Your task to perform on an android device: uninstall "Mercado Libre" Image 0: 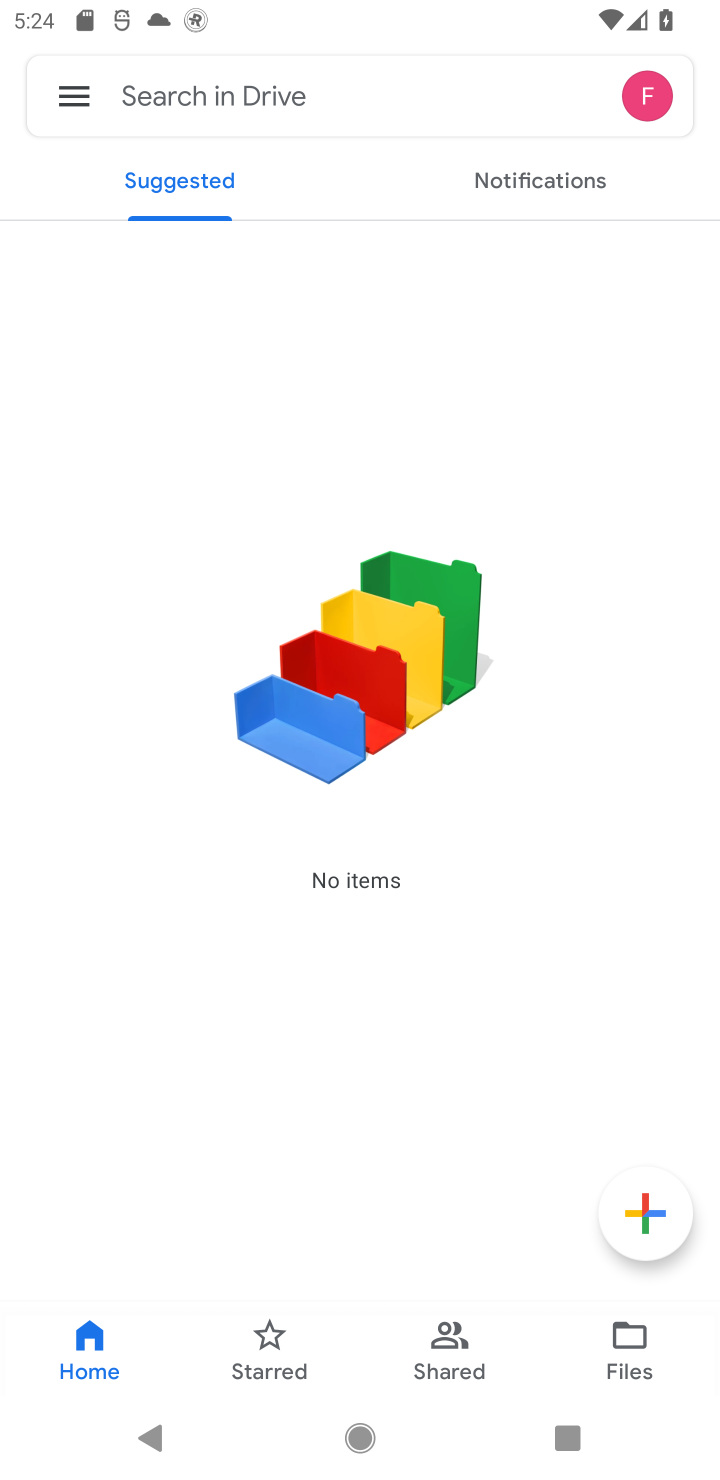
Step 0: press home button
Your task to perform on an android device: uninstall "Mercado Libre" Image 1: 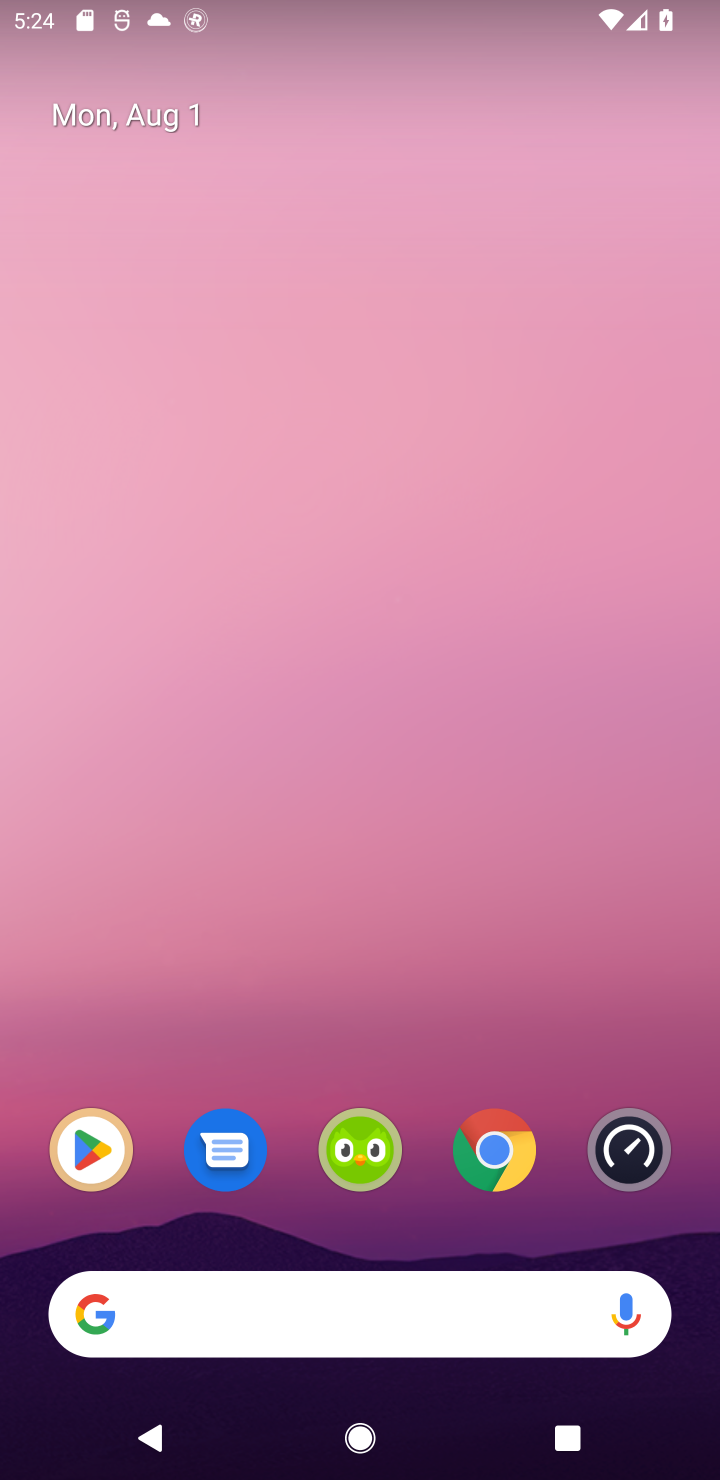
Step 1: drag from (292, 1257) to (247, 299)
Your task to perform on an android device: uninstall "Mercado Libre" Image 2: 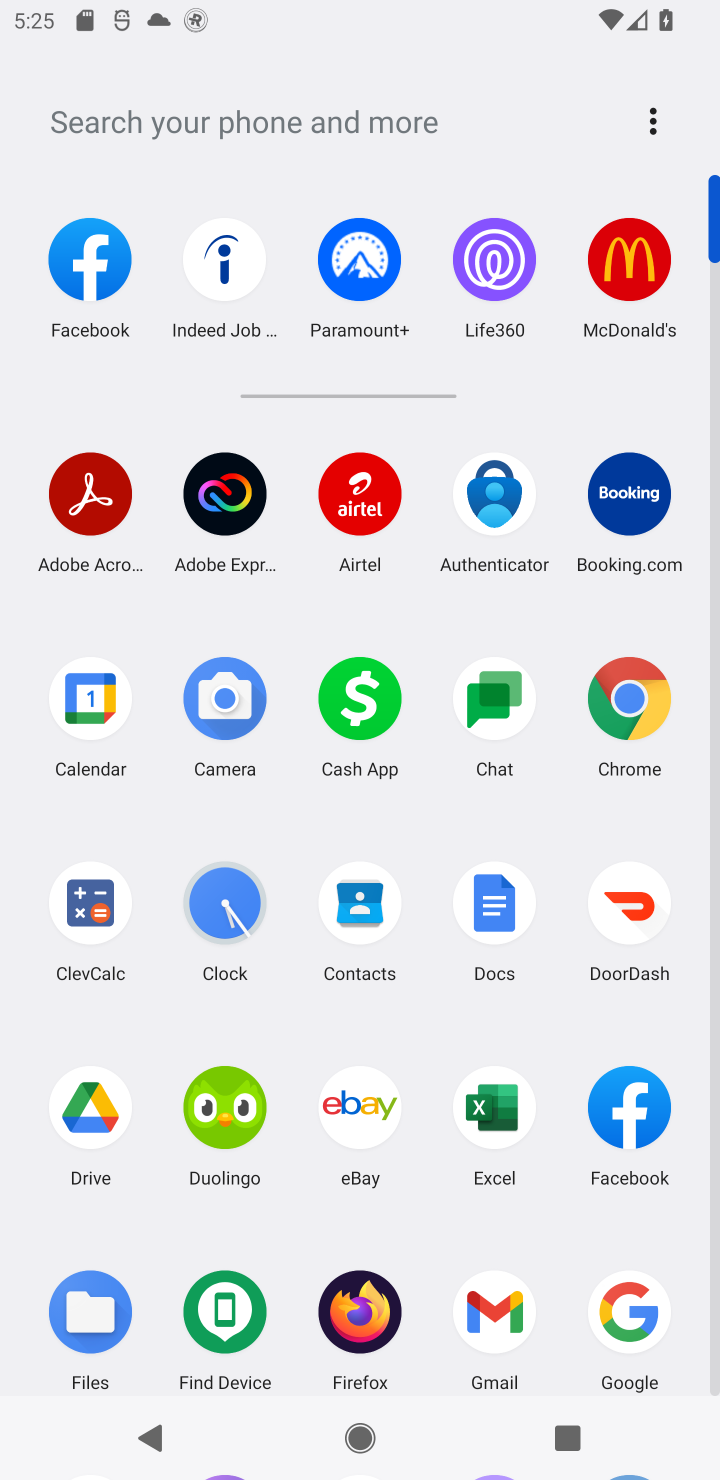
Step 2: drag from (716, 236) to (610, 685)
Your task to perform on an android device: uninstall "Mercado Libre" Image 3: 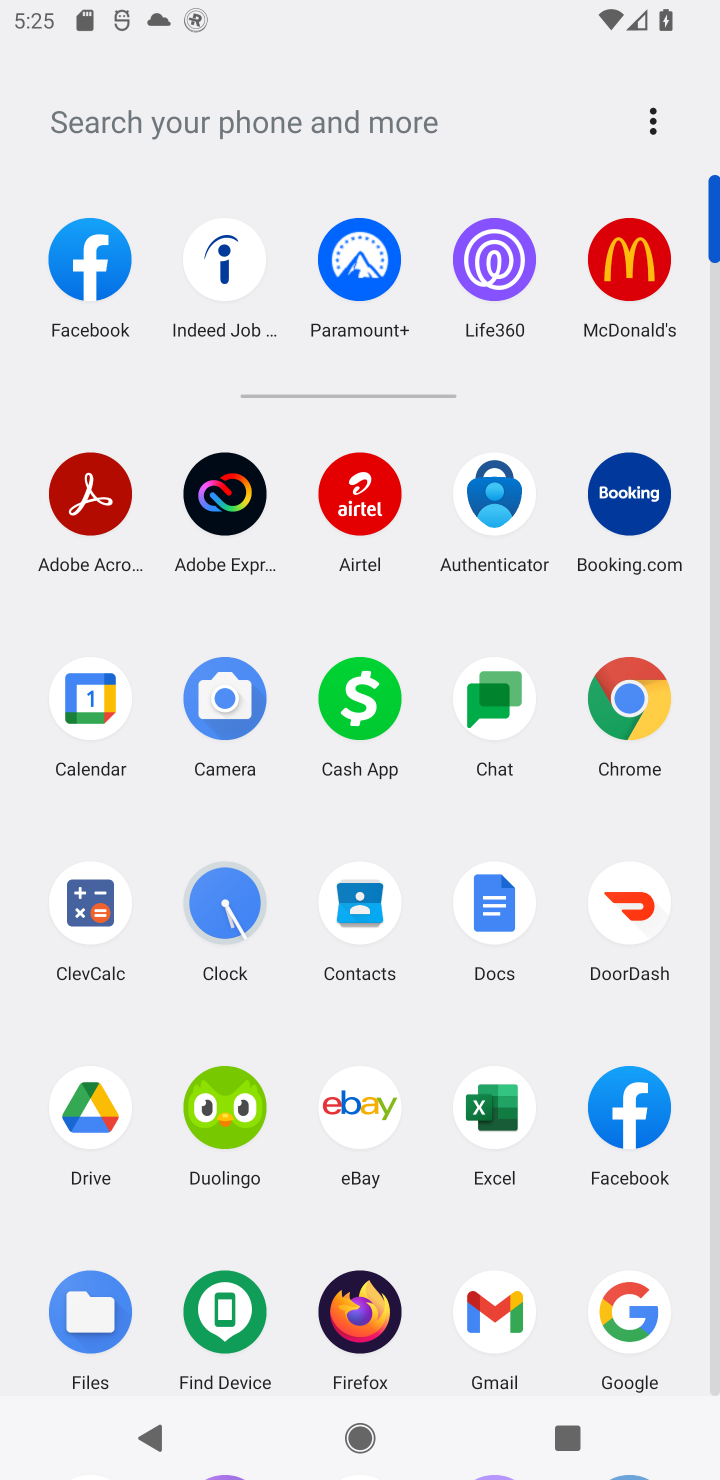
Step 3: press home button
Your task to perform on an android device: uninstall "Mercado Libre" Image 4: 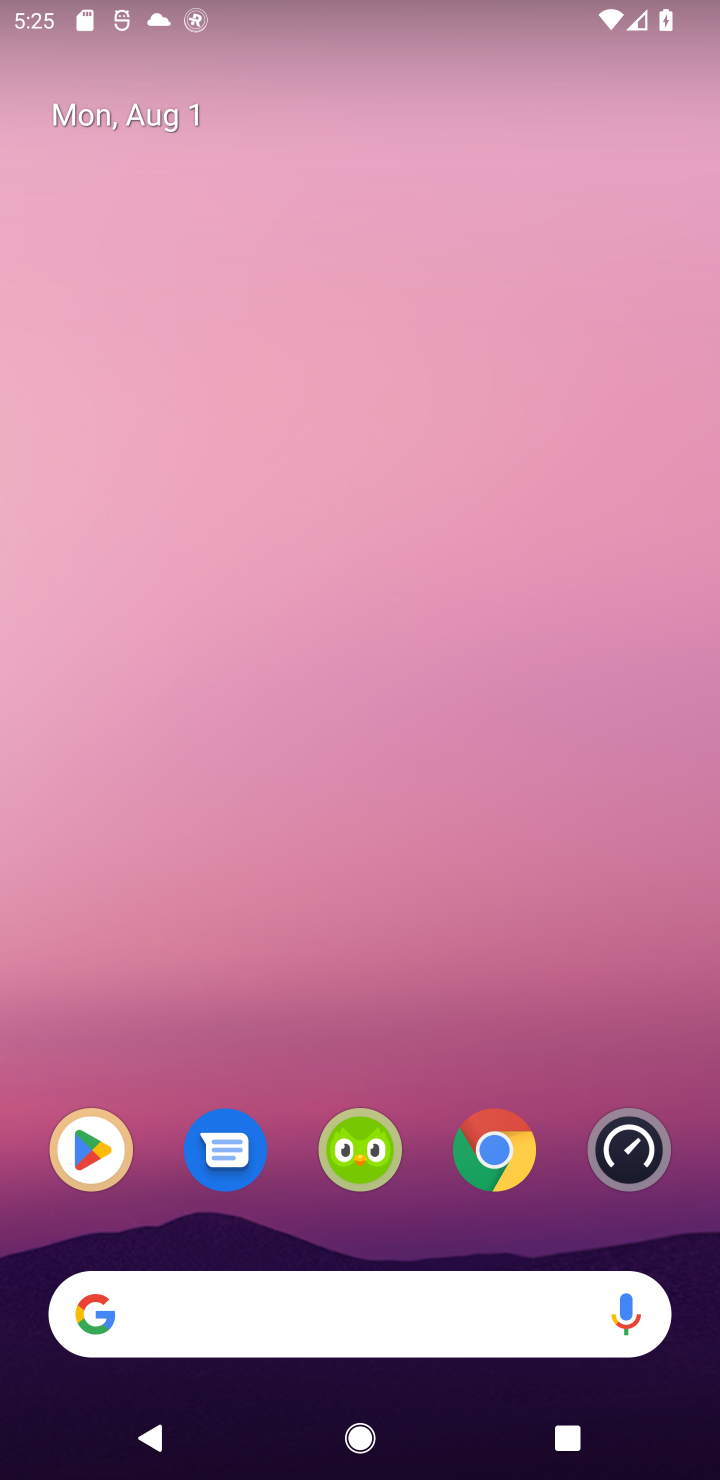
Step 4: click (60, 1133)
Your task to perform on an android device: uninstall "Mercado Libre" Image 5: 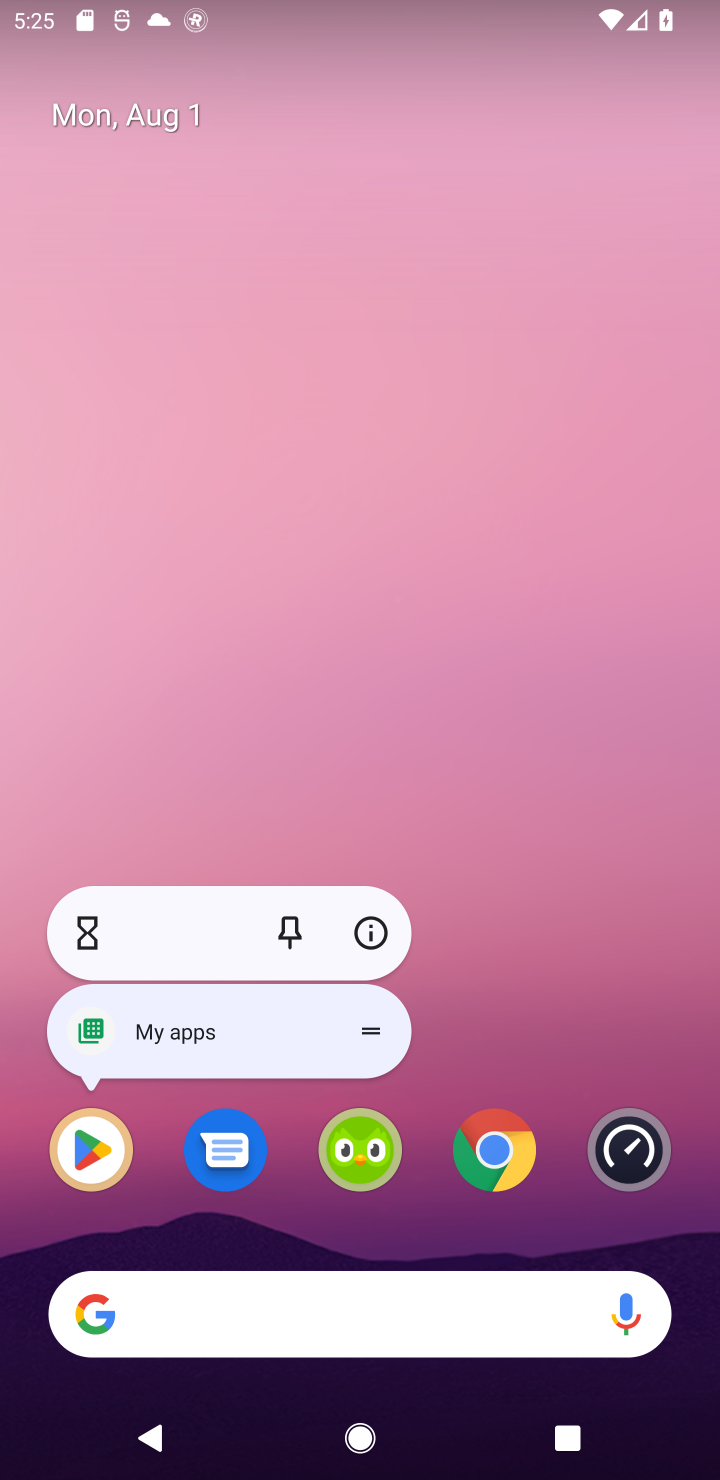
Step 5: click (84, 1134)
Your task to perform on an android device: uninstall "Mercado Libre" Image 6: 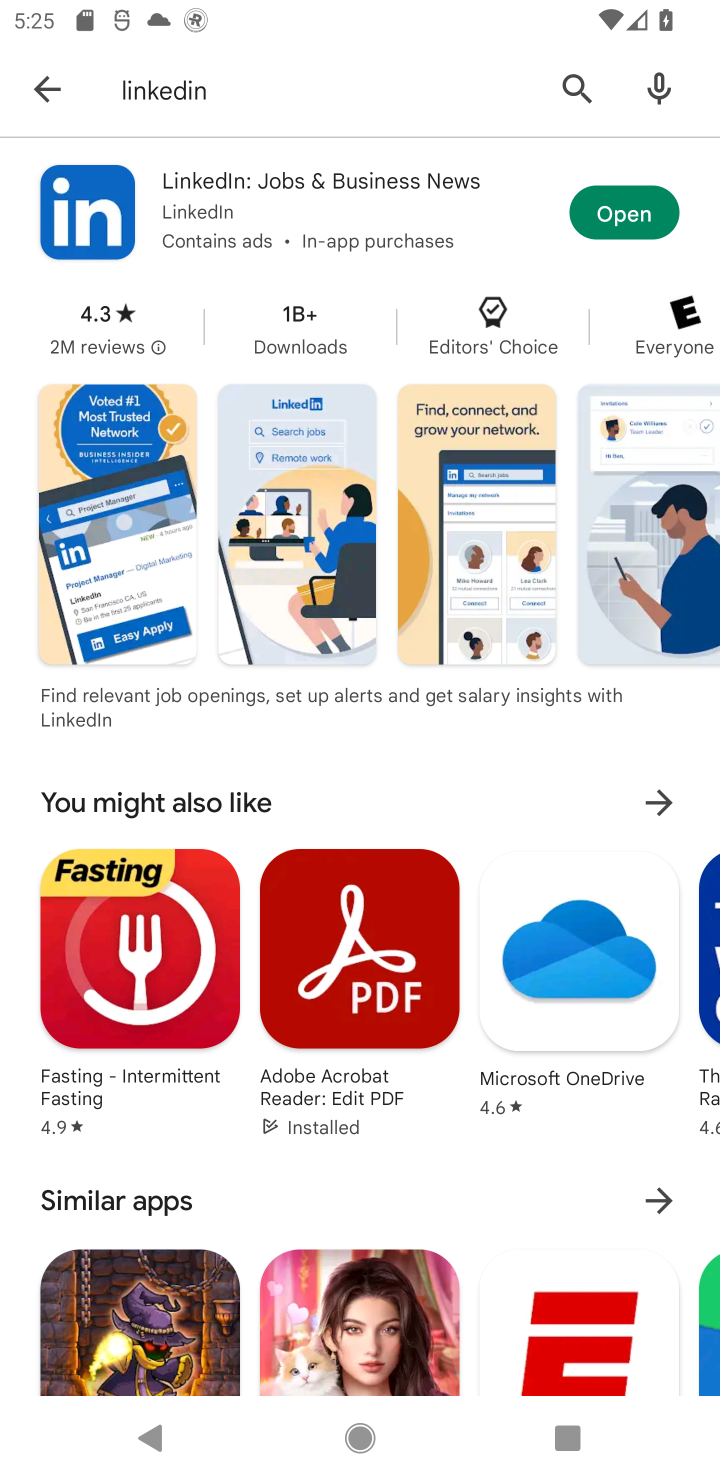
Step 6: click (573, 102)
Your task to perform on an android device: uninstall "Mercado Libre" Image 7: 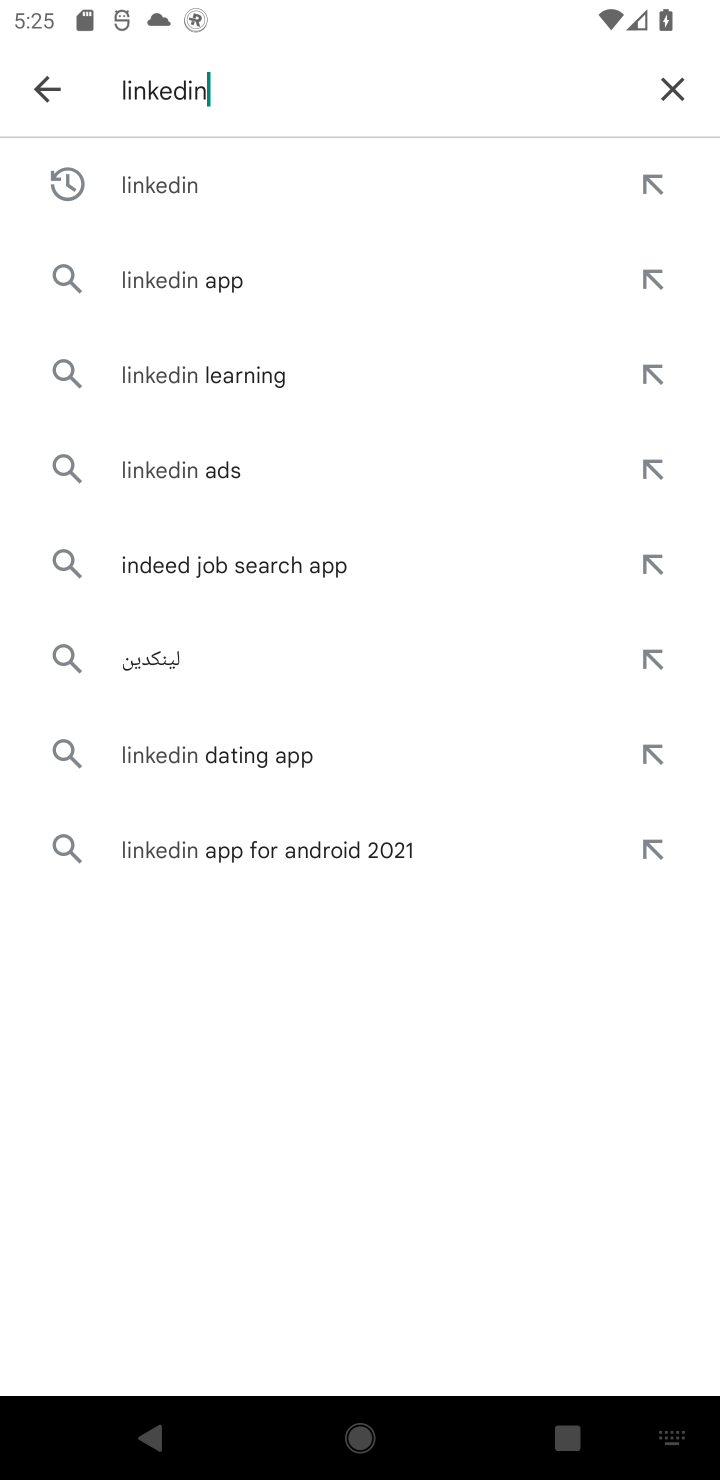
Step 7: click (688, 102)
Your task to perform on an android device: uninstall "Mercado Libre" Image 8: 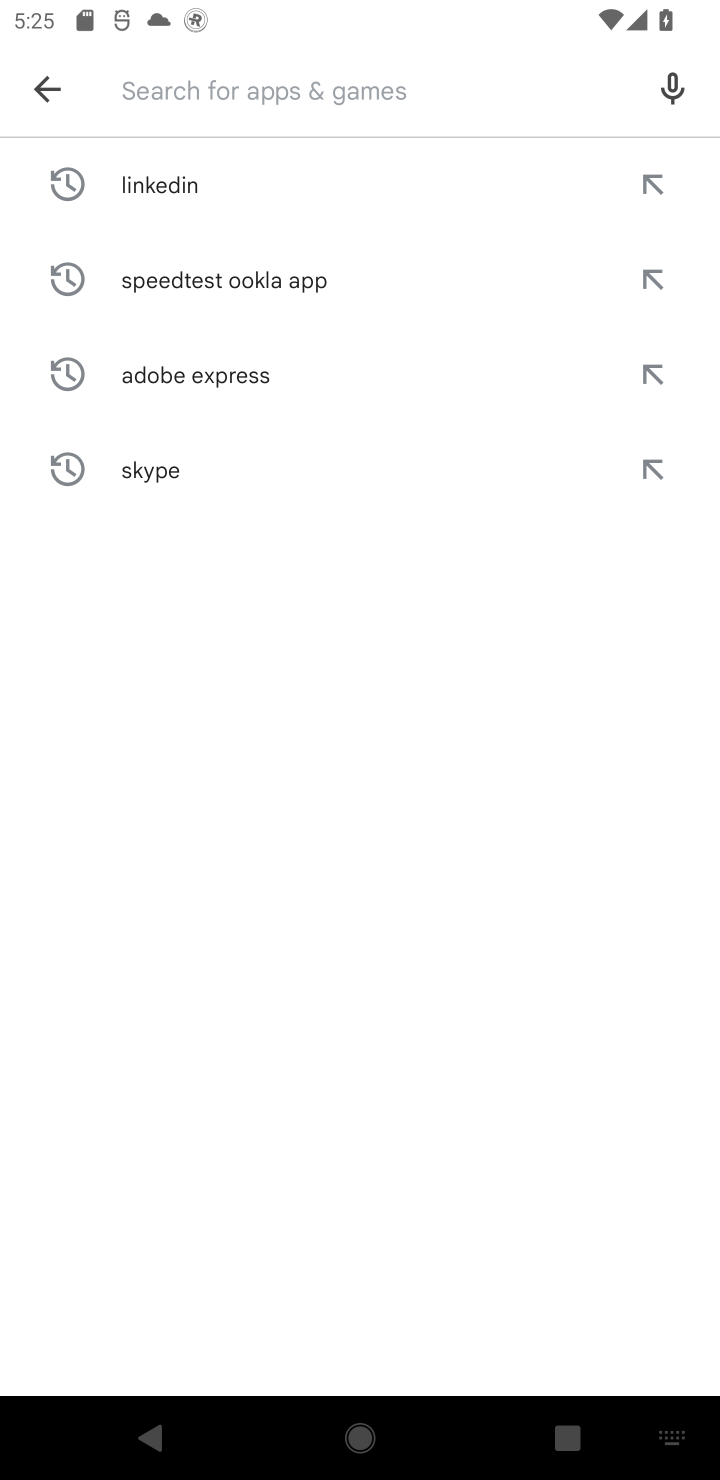
Step 8: type "mmercado"
Your task to perform on an android device: uninstall "Mercado Libre" Image 9: 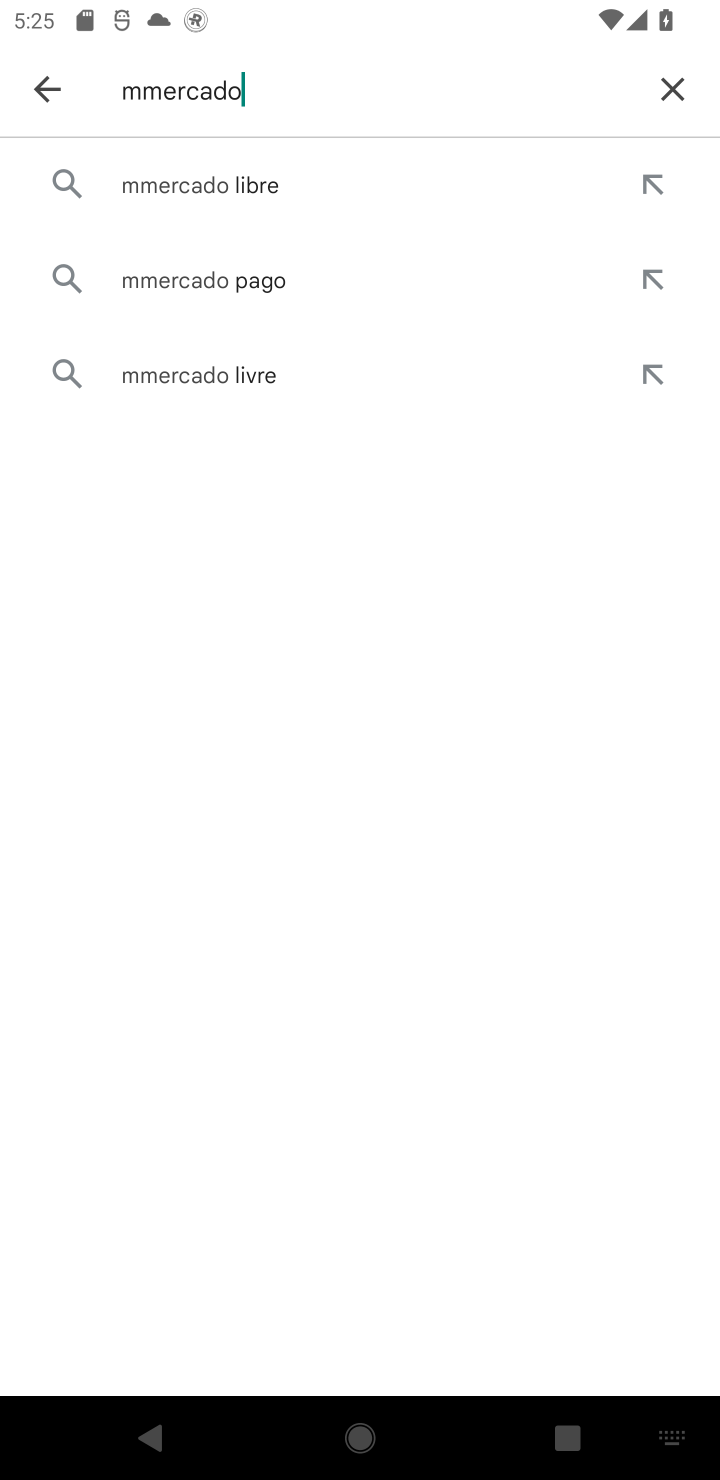
Step 9: click (388, 216)
Your task to perform on an android device: uninstall "Mercado Libre" Image 10: 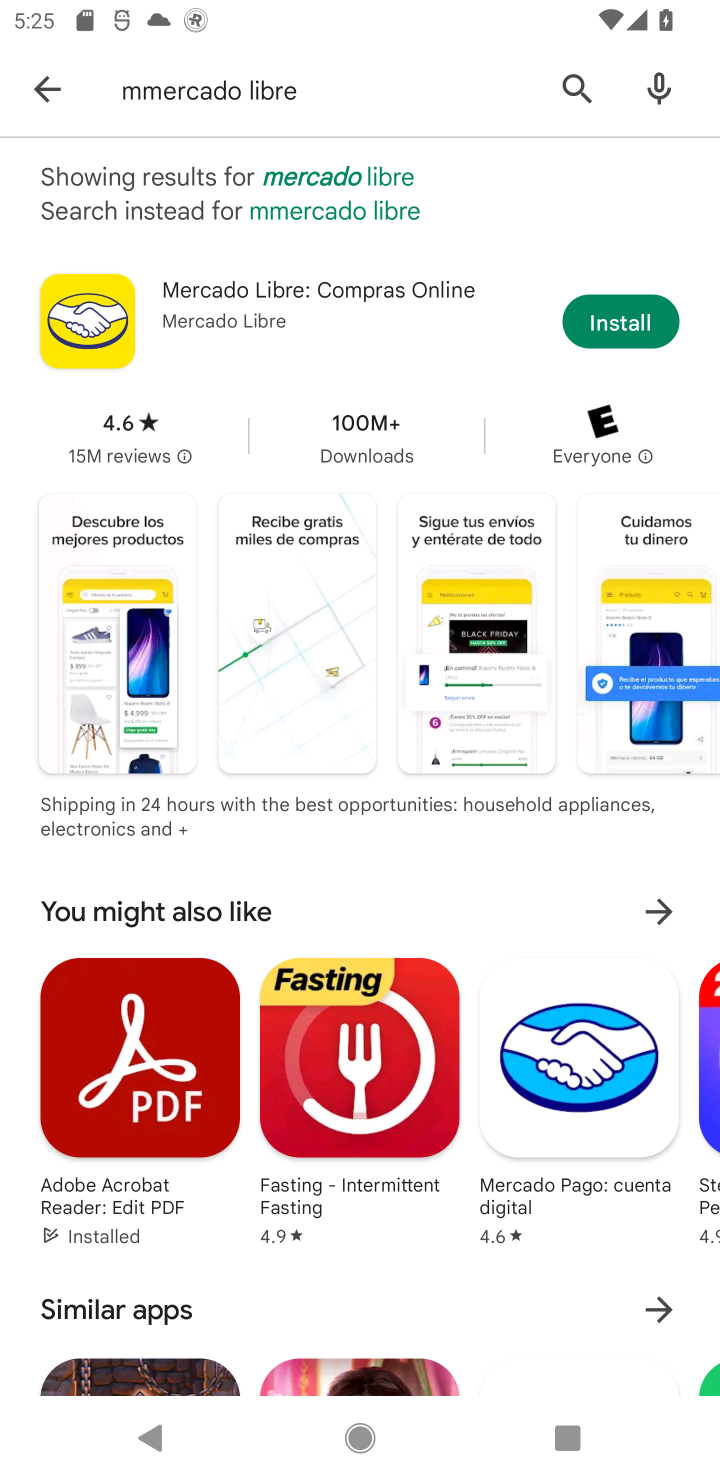
Step 10: click (586, 317)
Your task to perform on an android device: uninstall "Mercado Libre" Image 11: 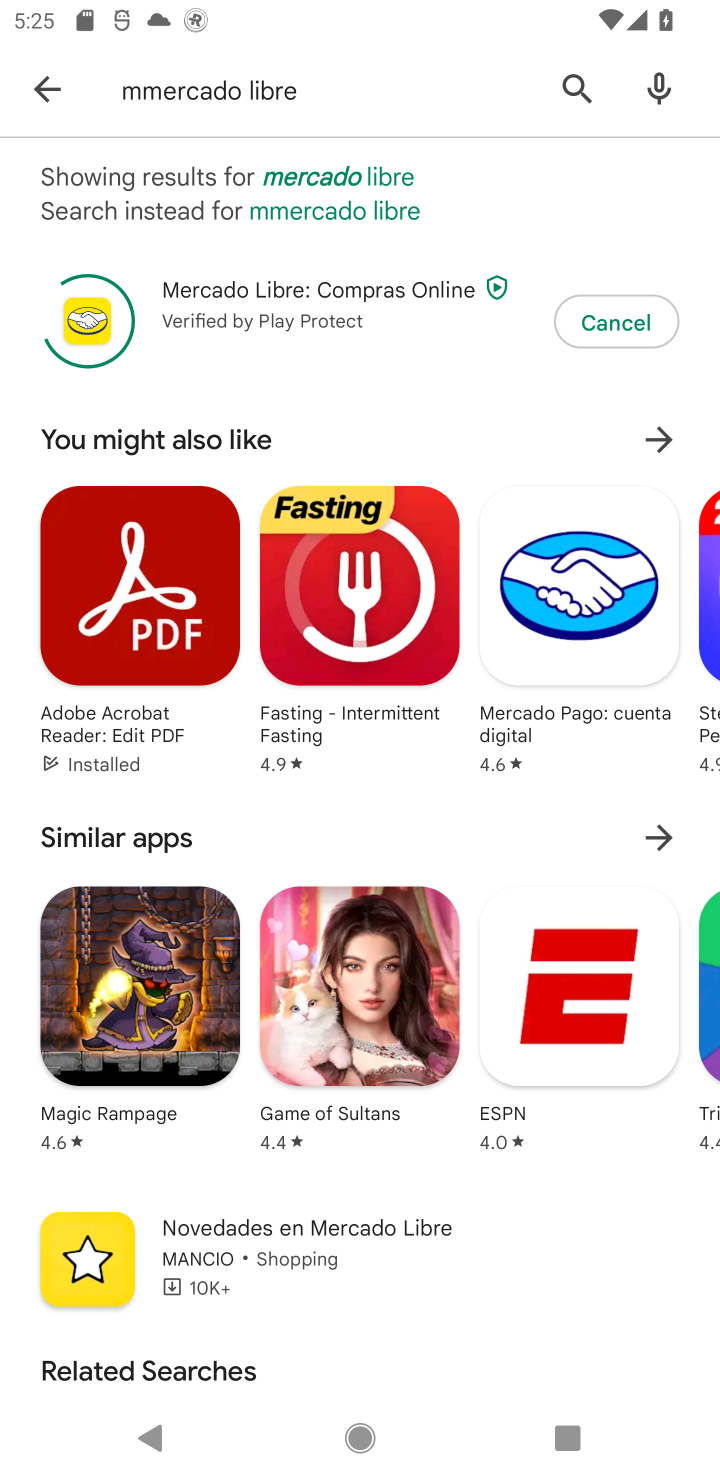
Step 11: task complete